Your task to perform on an android device: Open the map Image 0: 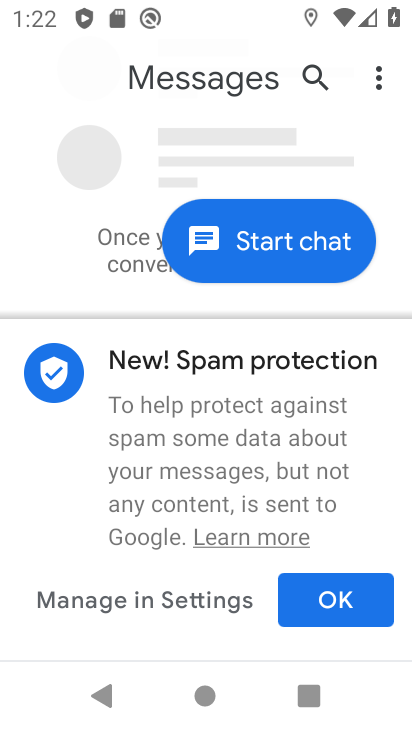
Step 0: drag from (379, 462) to (342, 234)
Your task to perform on an android device: Open the map Image 1: 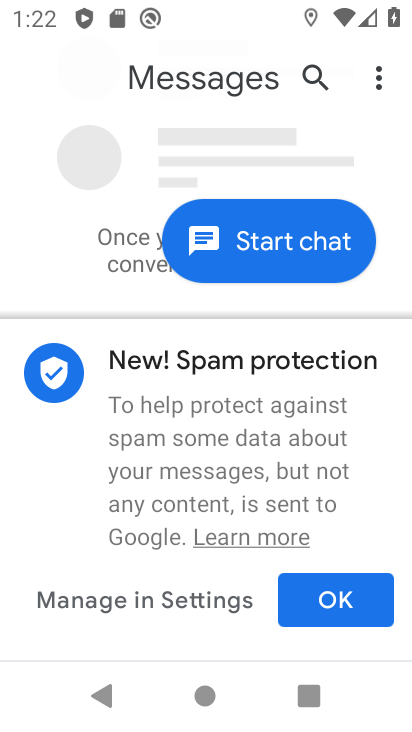
Step 1: press home button
Your task to perform on an android device: Open the map Image 2: 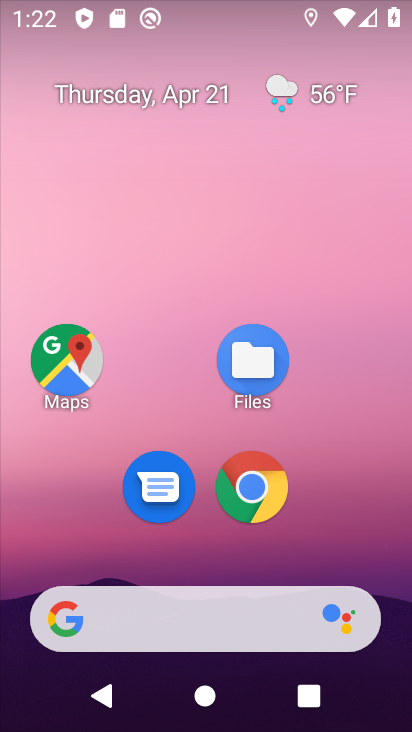
Step 2: click (58, 377)
Your task to perform on an android device: Open the map Image 3: 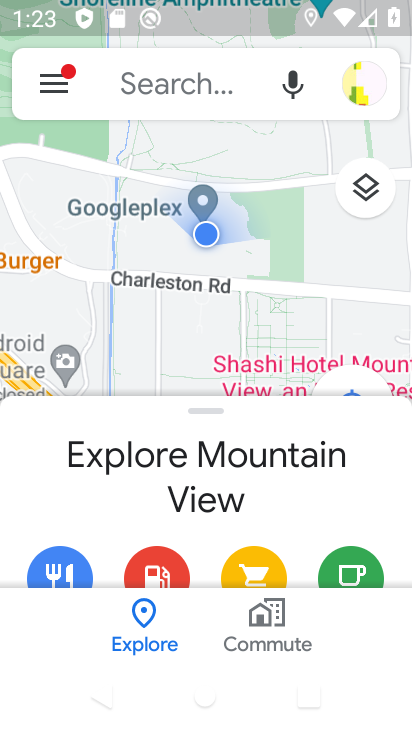
Step 3: task complete